Your task to perform on an android device: empty trash in google photos Image 0: 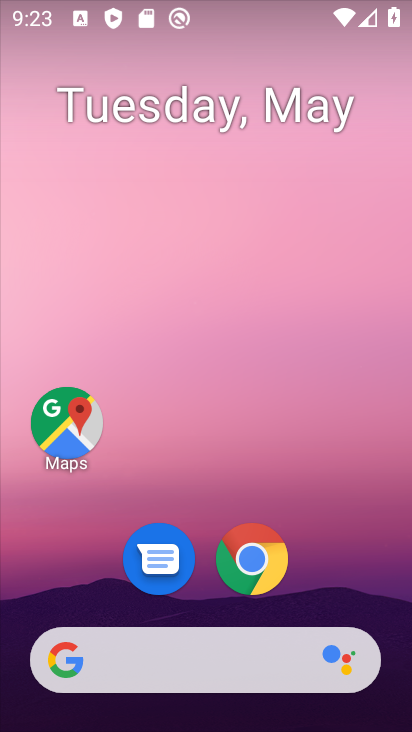
Step 0: drag from (125, 682) to (122, 159)
Your task to perform on an android device: empty trash in google photos Image 1: 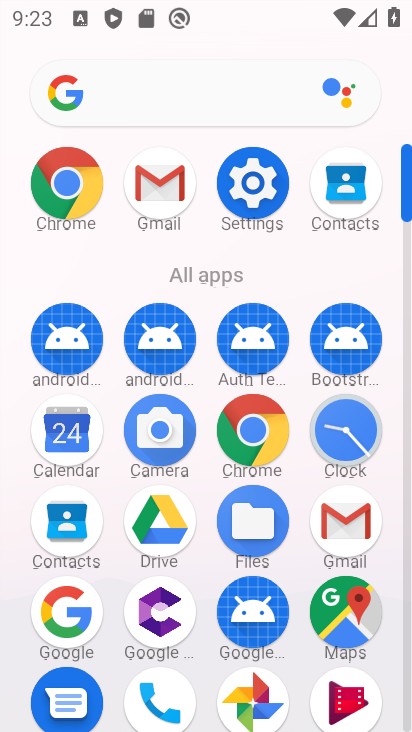
Step 1: click (245, 703)
Your task to perform on an android device: empty trash in google photos Image 2: 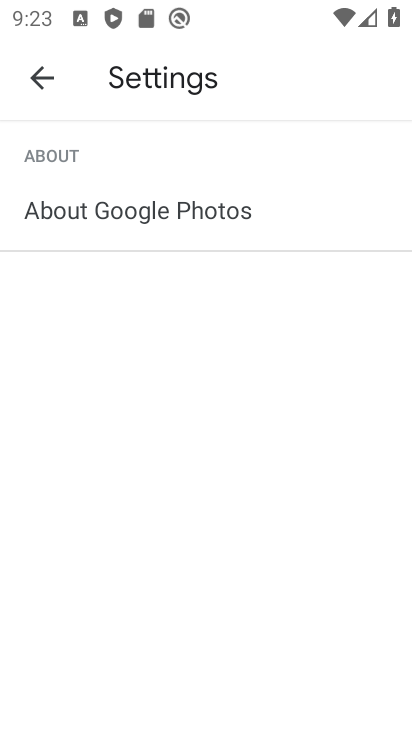
Step 2: click (44, 86)
Your task to perform on an android device: empty trash in google photos Image 3: 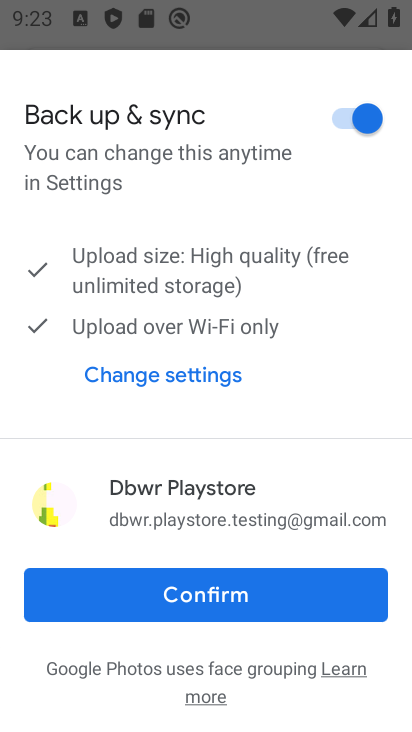
Step 3: click (161, 592)
Your task to perform on an android device: empty trash in google photos Image 4: 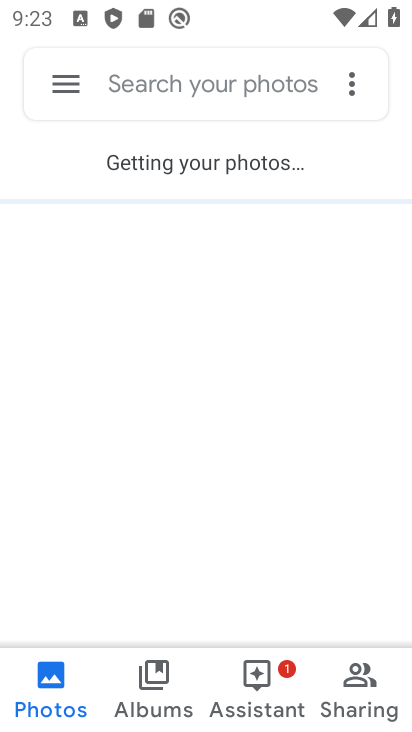
Step 4: click (69, 93)
Your task to perform on an android device: empty trash in google photos Image 5: 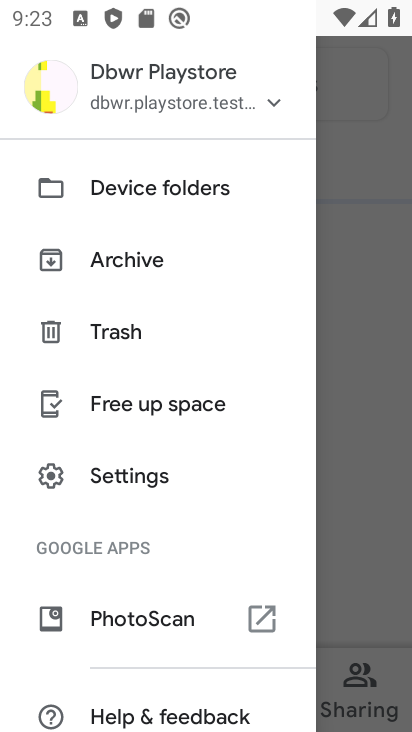
Step 5: click (100, 325)
Your task to perform on an android device: empty trash in google photos Image 6: 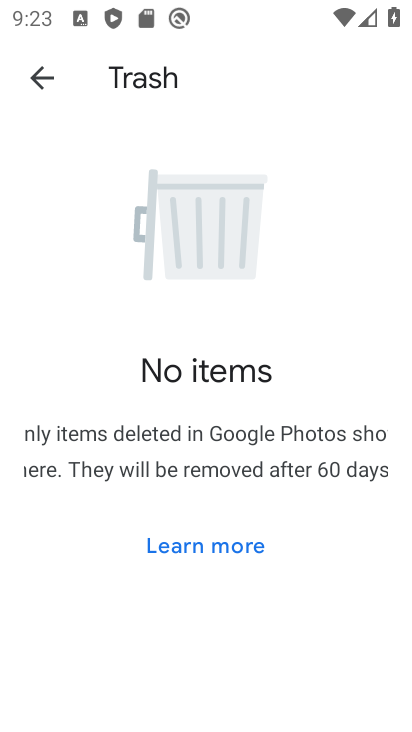
Step 6: task complete